Your task to perform on an android device: Open ESPN.com Image 0: 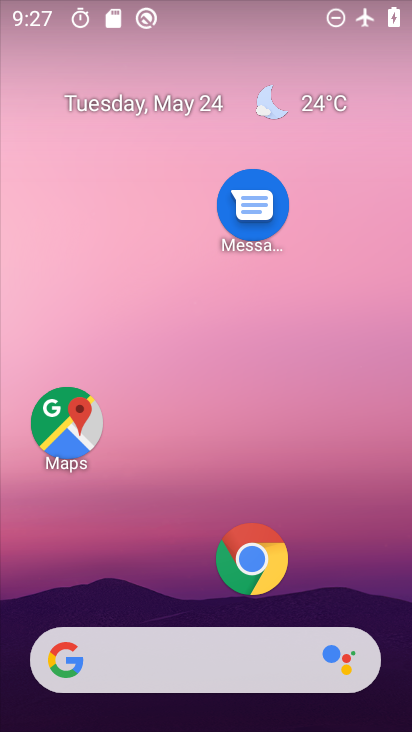
Step 0: click (238, 549)
Your task to perform on an android device: Open ESPN.com Image 1: 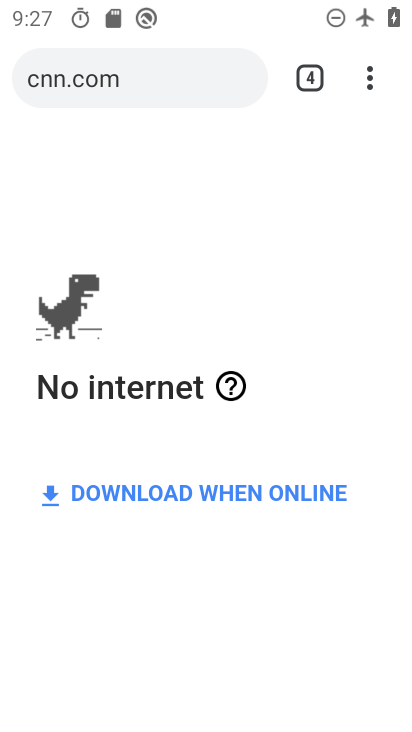
Step 1: click (302, 86)
Your task to perform on an android device: Open ESPN.com Image 2: 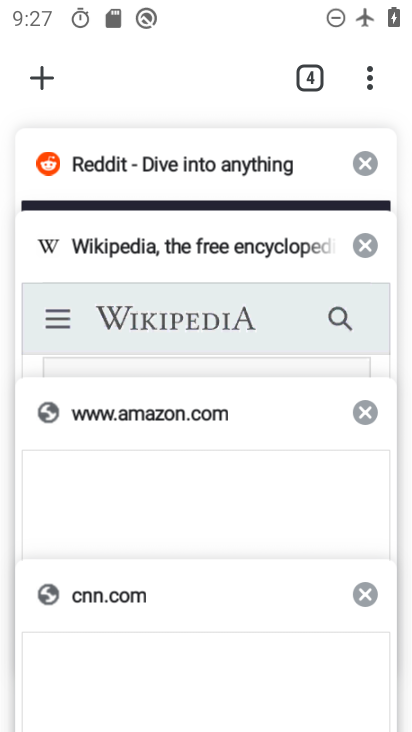
Step 2: drag from (173, 627) to (229, 339)
Your task to perform on an android device: Open ESPN.com Image 3: 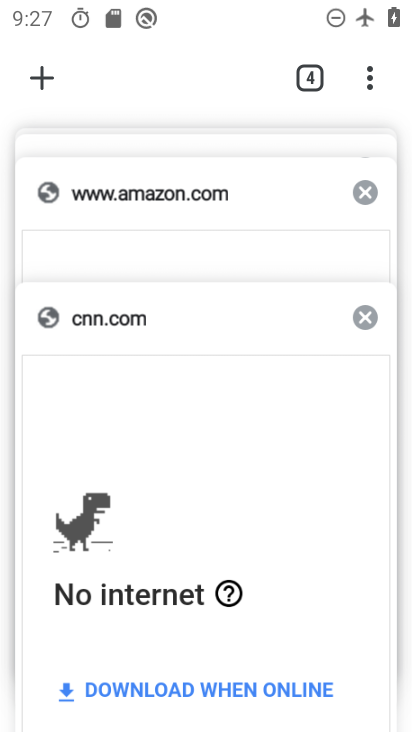
Step 3: drag from (206, 230) to (206, 564)
Your task to perform on an android device: Open ESPN.com Image 4: 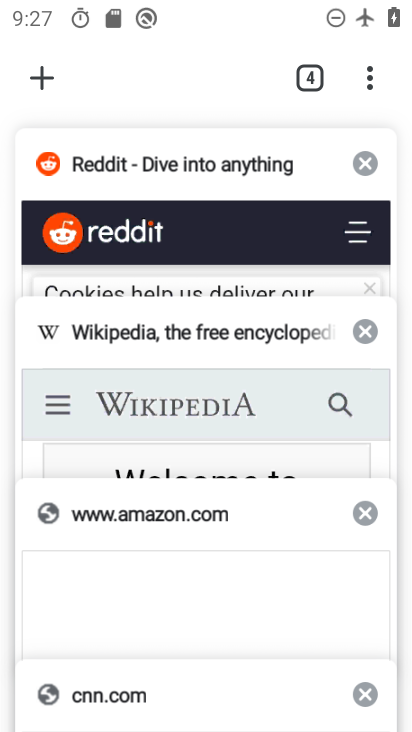
Step 4: drag from (171, 276) to (172, 506)
Your task to perform on an android device: Open ESPN.com Image 5: 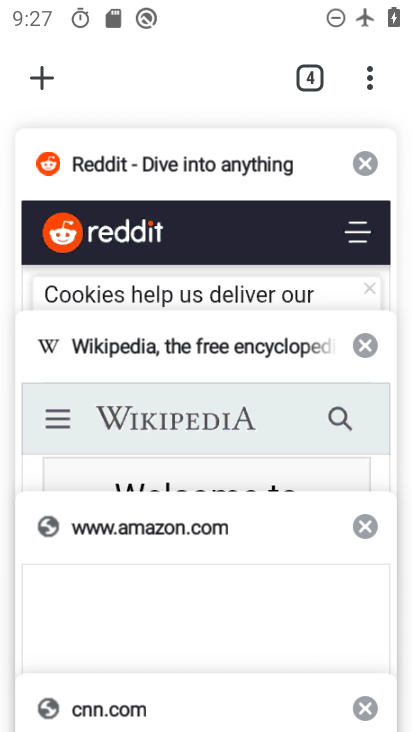
Step 5: drag from (164, 500) to (169, 272)
Your task to perform on an android device: Open ESPN.com Image 6: 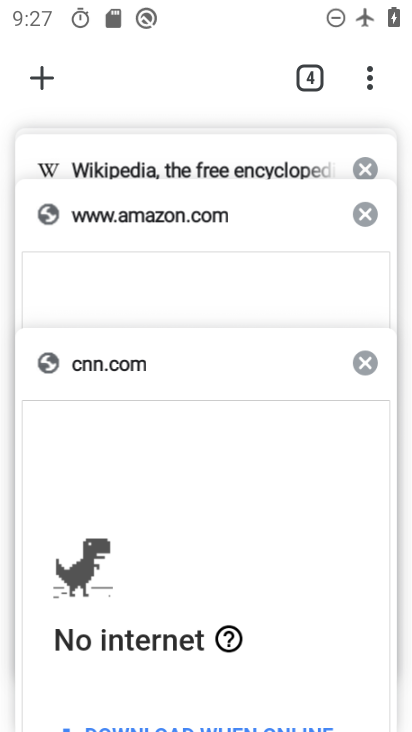
Step 6: drag from (234, 612) to (244, 309)
Your task to perform on an android device: Open ESPN.com Image 7: 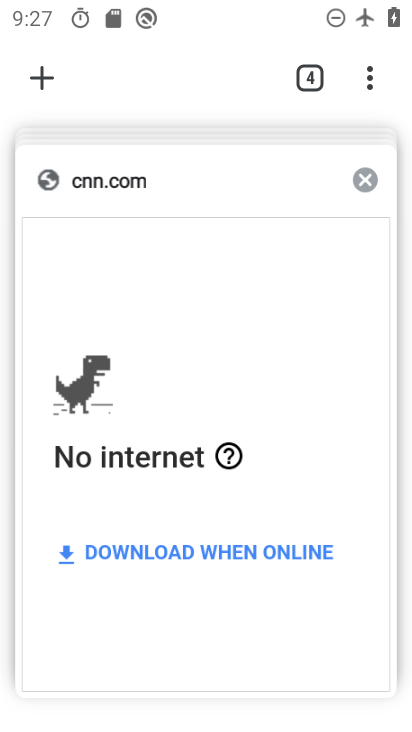
Step 7: drag from (246, 599) to (242, 271)
Your task to perform on an android device: Open ESPN.com Image 8: 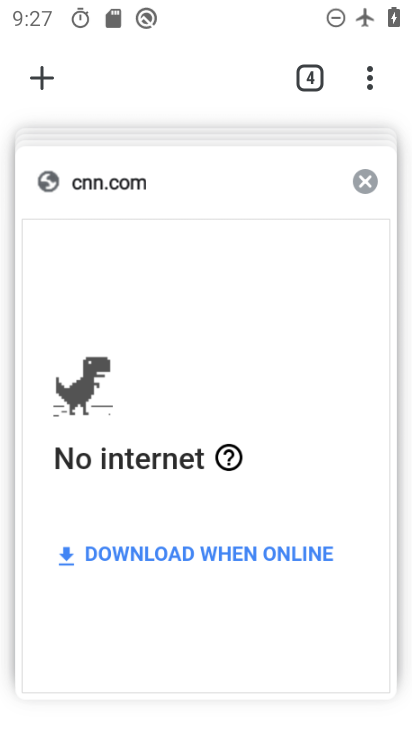
Step 8: click (49, 76)
Your task to perform on an android device: Open ESPN.com Image 9: 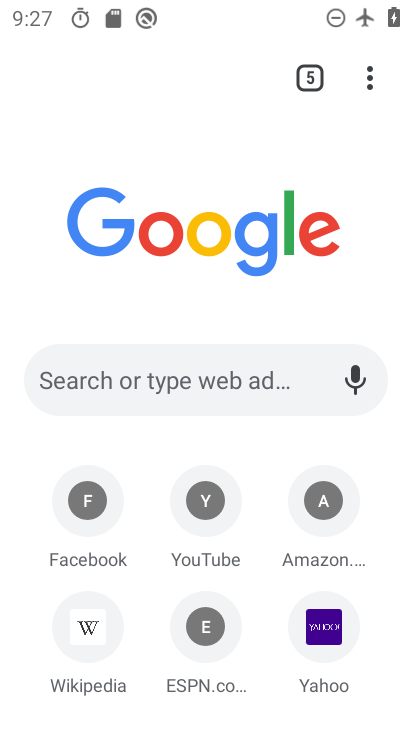
Step 9: click (203, 637)
Your task to perform on an android device: Open ESPN.com Image 10: 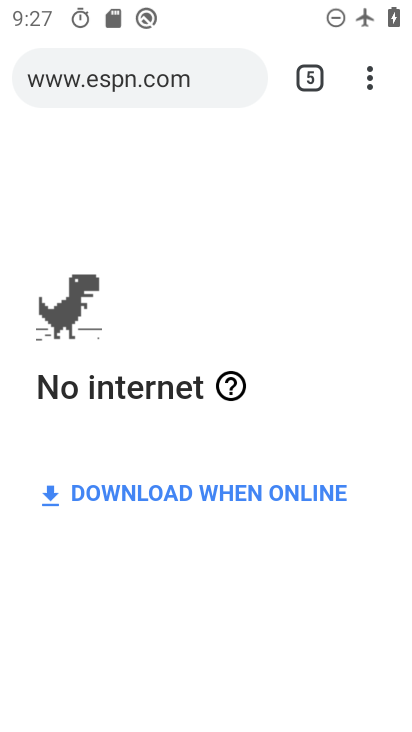
Step 10: task complete